Your task to perform on an android device: open device folders in google photos Image 0: 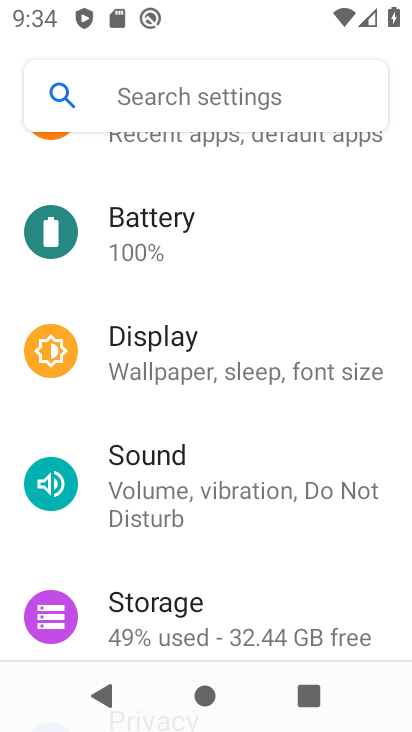
Step 0: press home button
Your task to perform on an android device: open device folders in google photos Image 1: 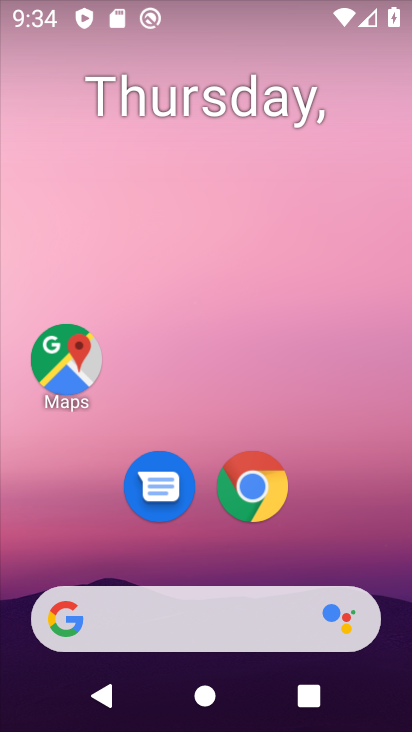
Step 1: drag from (221, 555) to (312, 35)
Your task to perform on an android device: open device folders in google photos Image 2: 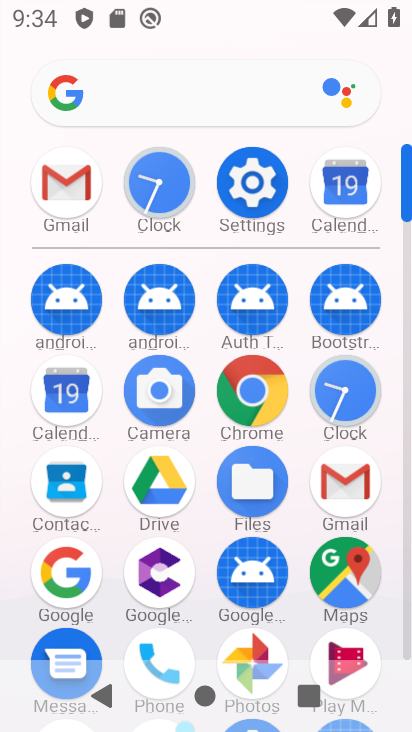
Step 2: click (245, 645)
Your task to perform on an android device: open device folders in google photos Image 3: 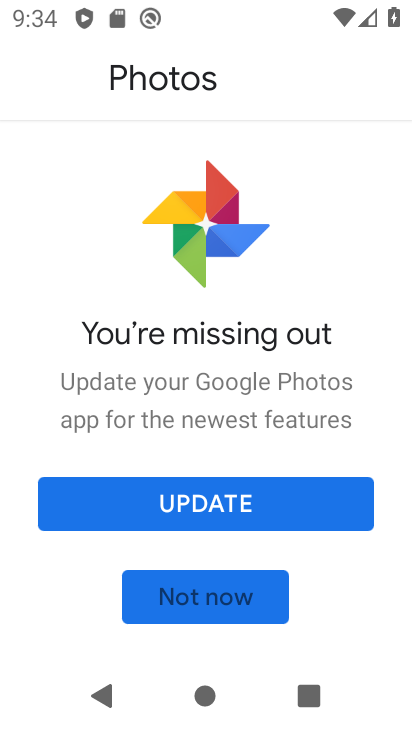
Step 3: click (267, 465)
Your task to perform on an android device: open device folders in google photos Image 4: 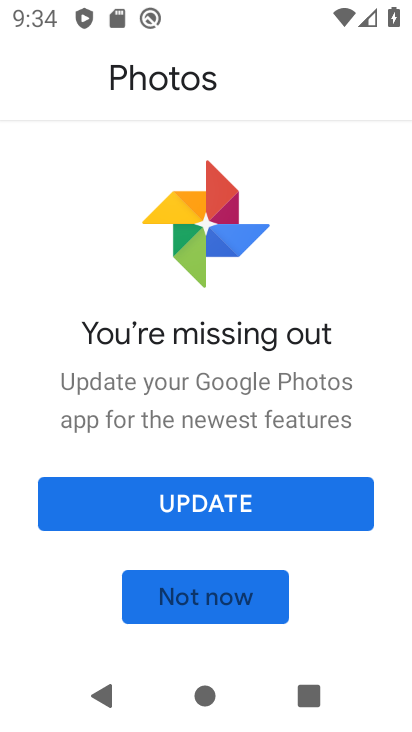
Step 4: click (210, 504)
Your task to perform on an android device: open device folders in google photos Image 5: 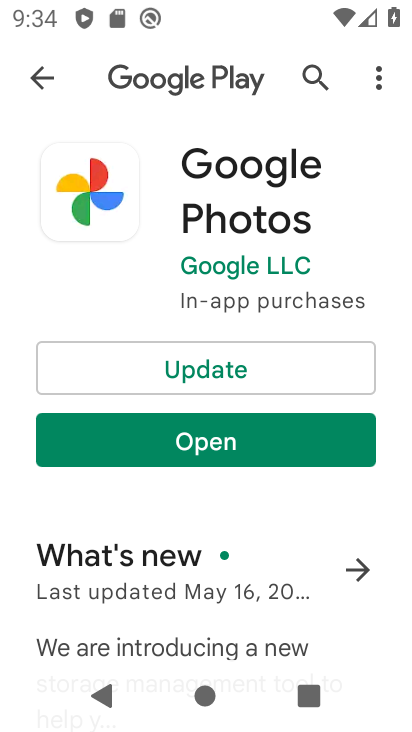
Step 5: click (256, 451)
Your task to perform on an android device: open device folders in google photos Image 6: 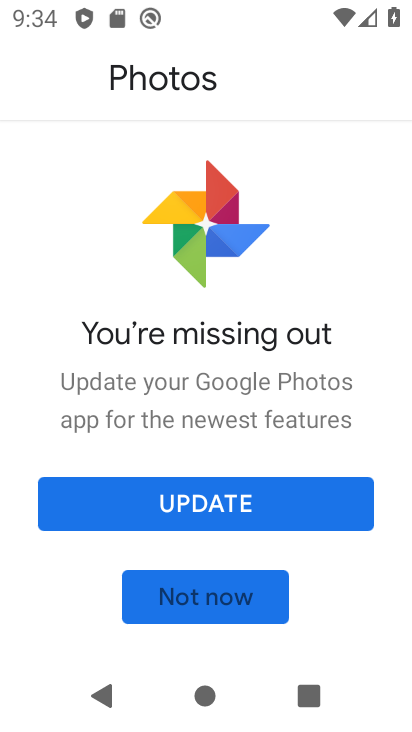
Step 6: click (206, 583)
Your task to perform on an android device: open device folders in google photos Image 7: 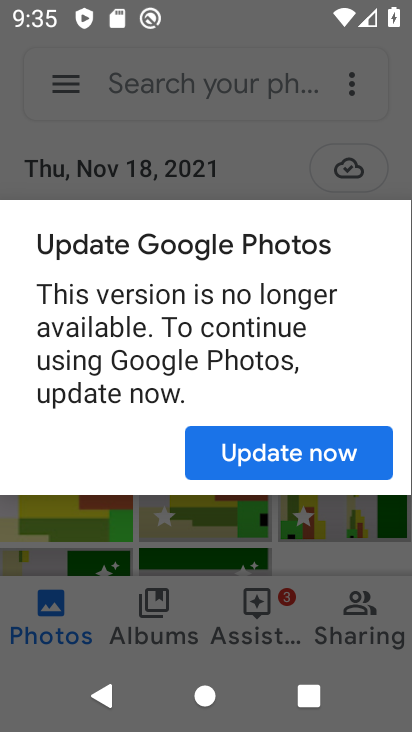
Step 7: click (261, 459)
Your task to perform on an android device: open device folders in google photos Image 8: 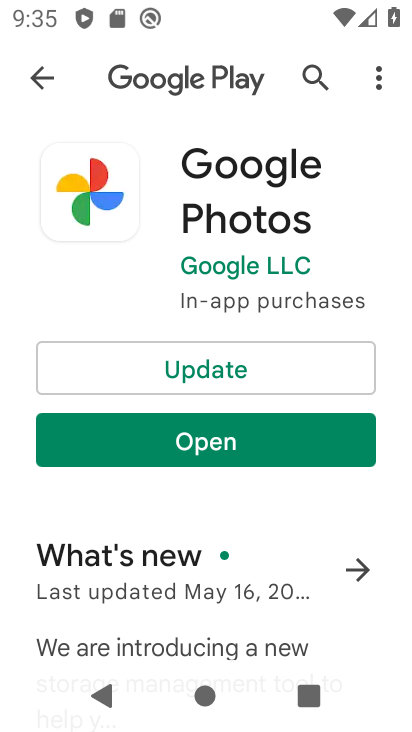
Step 8: click (249, 455)
Your task to perform on an android device: open device folders in google photos Image 9: 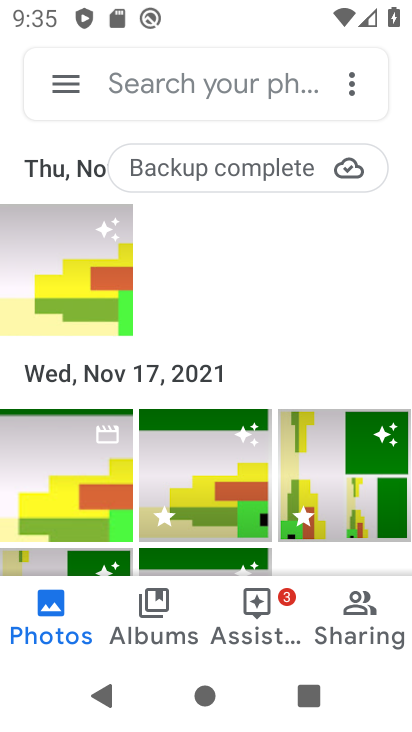
Step 9: click (58, 76)
Your task to perform on an android device: open device folders in google photos Image 10: 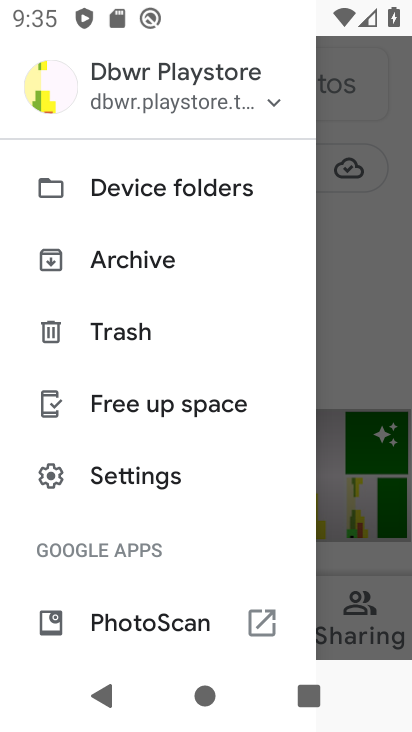
Step 10: click (151, 184)
Your task to perform on an android device: open device folders in google photos Image 11: 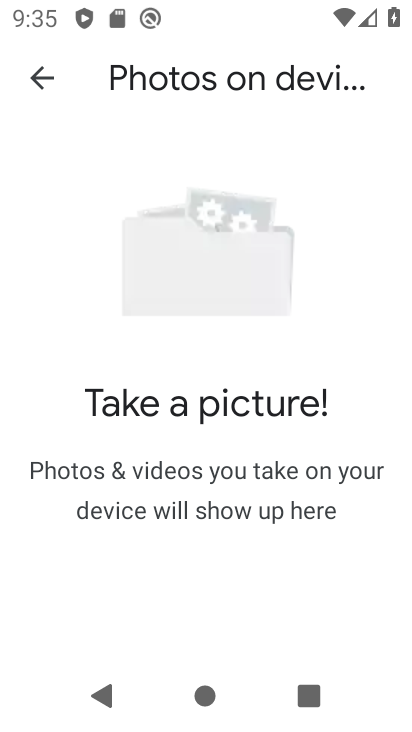
Step 11: task complete